Your task to perform on an android device: turn on data saver in the chrome app Image 0: 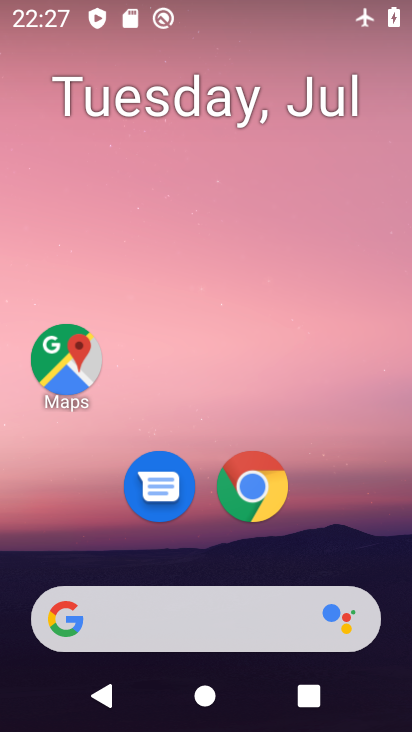
Step 0: drag from (363, 527) to (370, 201)
Your task to perform on an android device: turn on data saver in the chrome app Image 1: 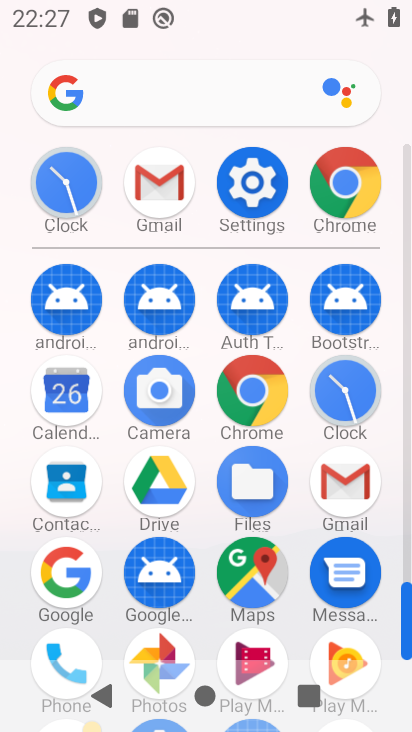
Step 1: click (243, 386)
Your task to perform on an android device: turn on data saver in the chrome app Image 2: 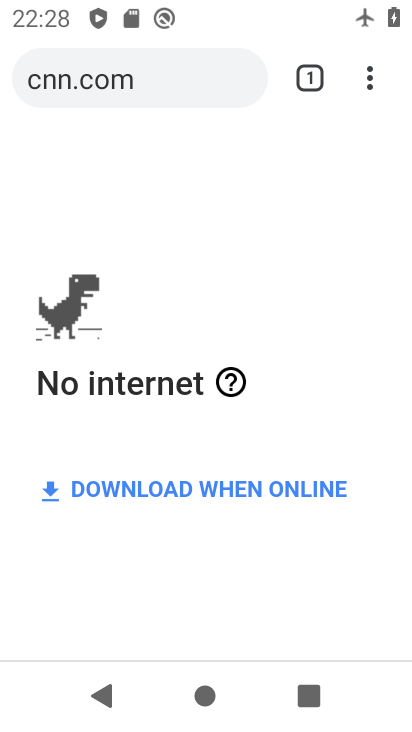
Step 2: click (366, 85)
Your task to perform on an android device: turn on data saver in the chrome app Image 3: 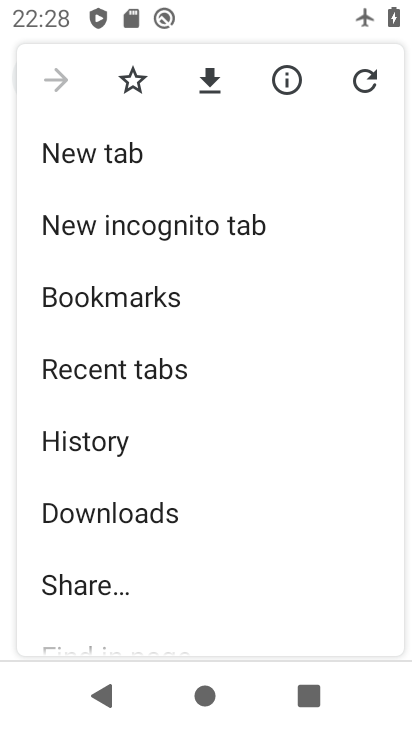
Step 3: drag from (335, 274) to (341, 228)
Your task to perform on an android device: turn on data saver in the chrome app Image 4: 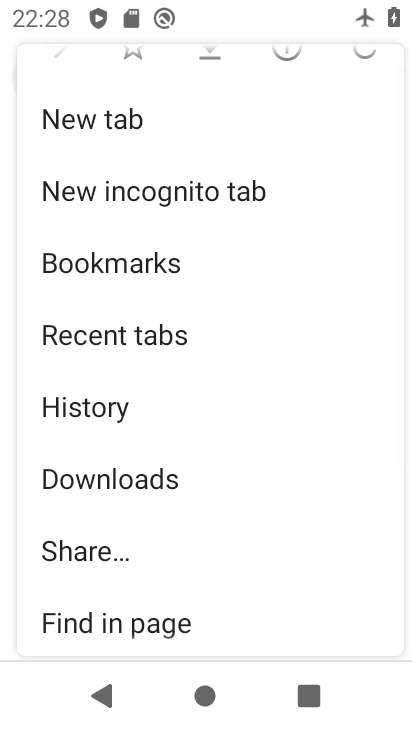
Step 4: drag from (341, 348) to (344, 270)
Your task to perform on an android device: turn on data saver in the chrome app Image 5: 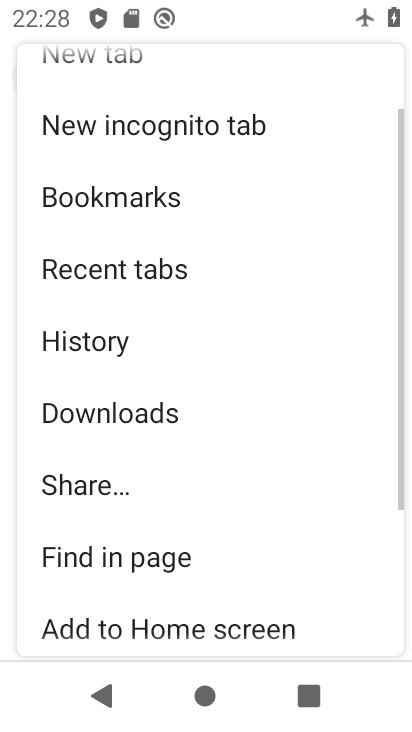
Step 5: drag from (318, 385) to (321, 322)
Your task to perform on an android device: turn on data saver in the chrome app Image 6: 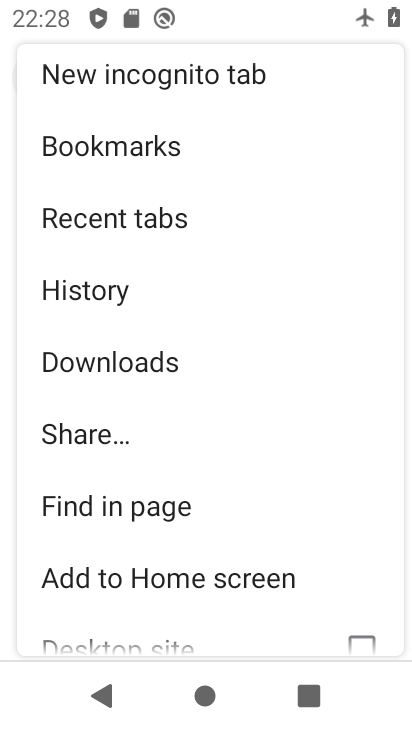
Step 6: drag from (314, 400) to (322, 352)
Your task to perform on an android device: turn on data saver in the chrome app Image 7: 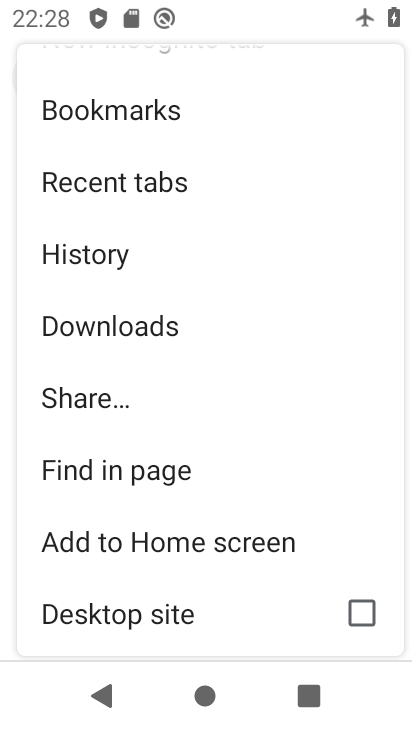
Step 7: drag from (311, 424) to (315, 354)
Your task to perform on an android device: turn on data saver in the chrome app Image 8: 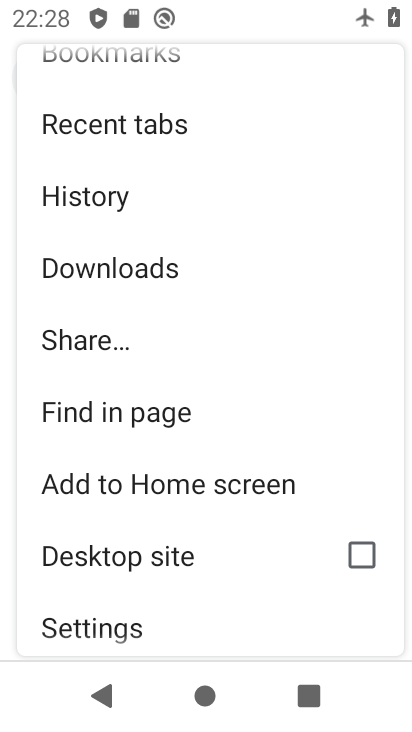
Step 8: drag from (310, 429) to (318, 361)
Your task to perform on an android device: turn on data saver in the chrome app Image 9: 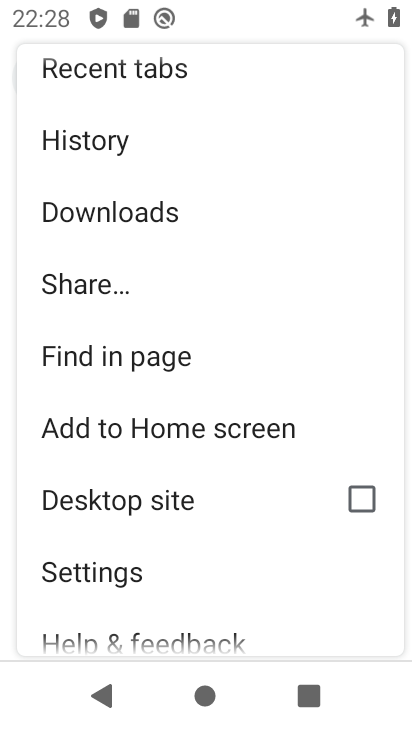
Step 9: drag from (305, 470) to (316, 396)
Your task to perform on an android device: turn on data saver in the chrome app Image 10: 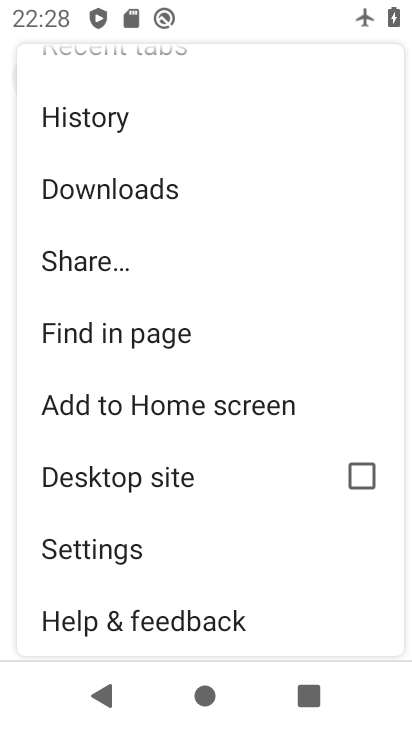
Step 10: click (151, 549)
Your task to perform on an android device: turn on data saver in the chrome app Image 11: 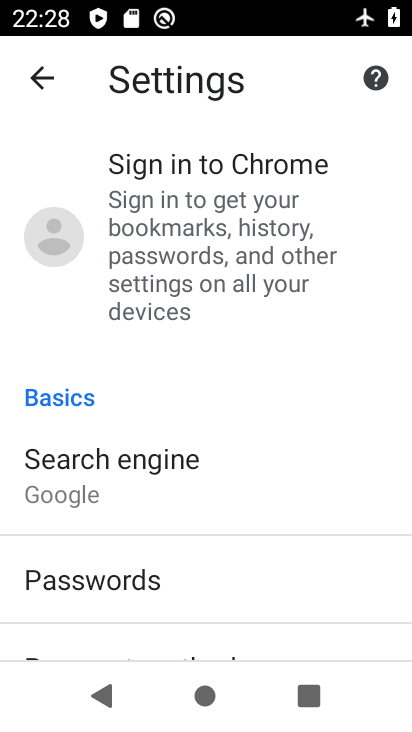
Step 11: drag from (264, 549) to (269, 508)
Your task to perform on an android device: turn on data saver in the chrome app Image 12: 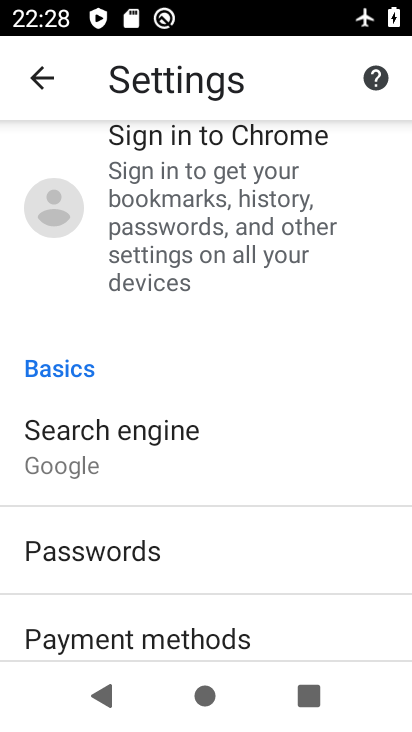
Step 12: drag from (301, 581) to (306, 535)
Your task to perform on an android device: turn on data saver in the chrome app Image 13: 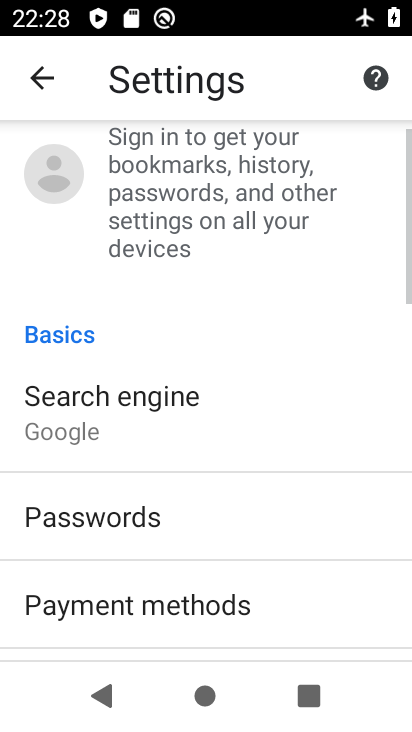
Step 13: drag from (320, 571) to (322, 521)
Your task to perform on an android device: turn on data saver in the chrome app Image 14: 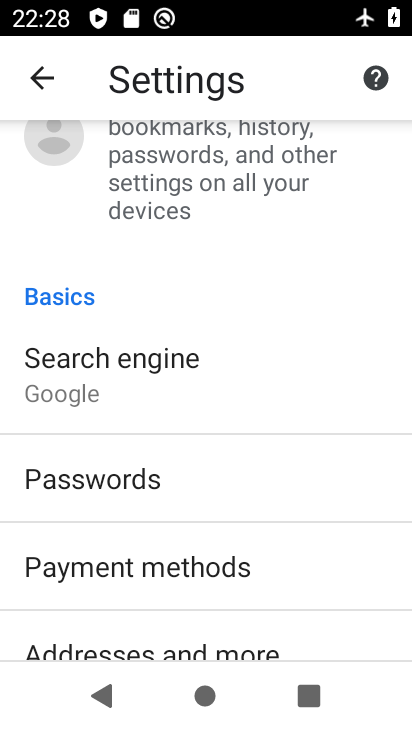
Step 14: drag from (339, 569) to (341, 521)
Your task to perform on an android device: turn on data saver in the chrome app Image 15: 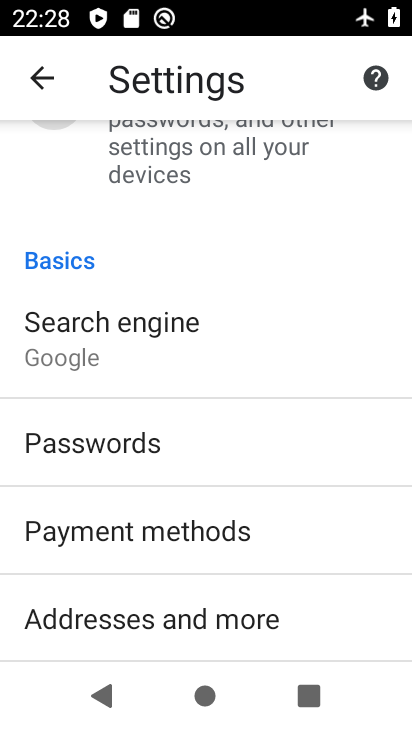
Step 15: drag from (341, 553) to (340, 505)
Your task to perform on an android device: turn on data saver in the chrome app Image 16: 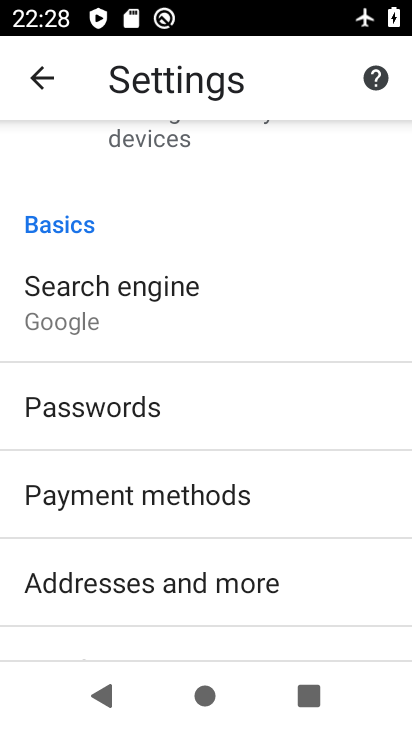
Step 16: drag from (338, 565) to (337, 517)
Your task to perform on an android device: turn on data saver in the chrome app Image 17: 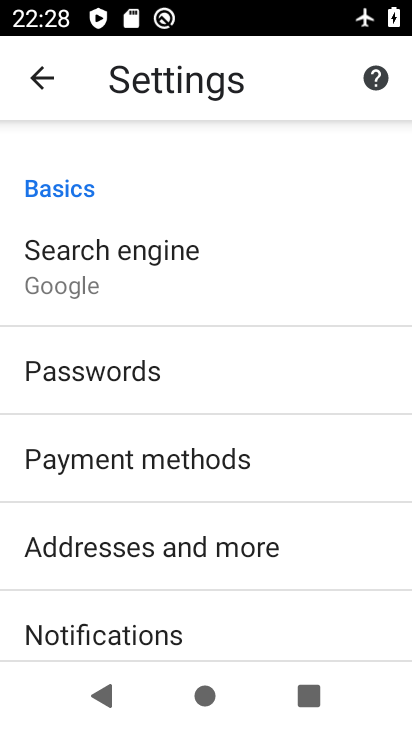
Step 17: drag from (329, 580) to (332, 520)
Your task to perform on an android device: turn on data saver in the chrome app Image 18: 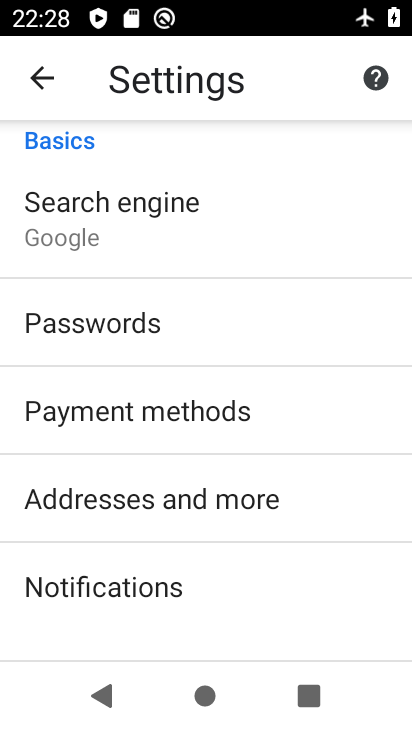
Step 18: drag from (328, 559) to (327, 494)
Your task to perform on an android device: turn on data saver in the chrome app Image 19: 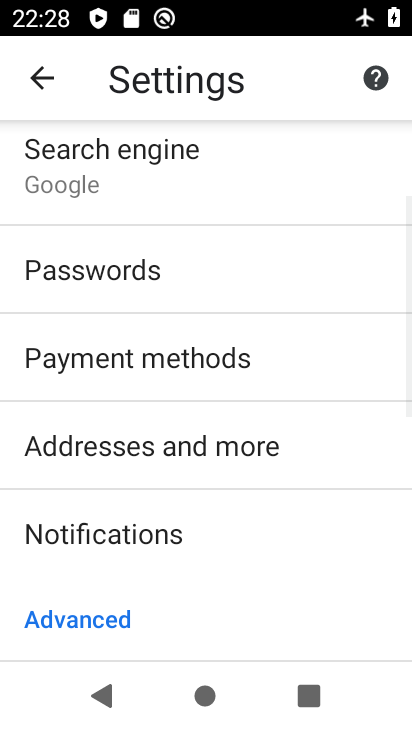
Step 19: drag from (319, 554) to (319, 486)
Your task to perform on an android device: turn on data saver in the chrome app Image 20: 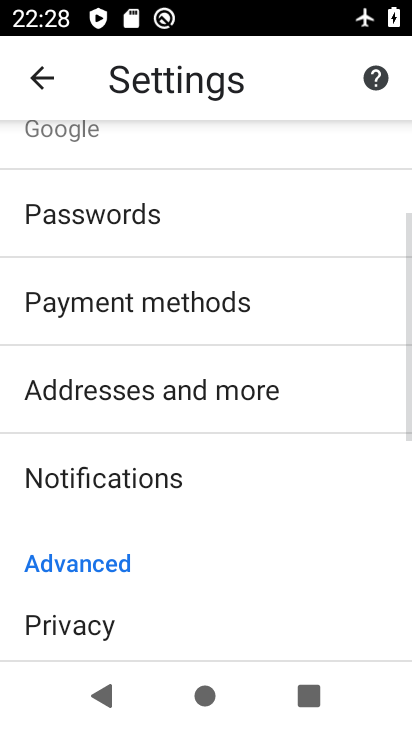
Step 20: drag from (328, 554) to (327, 471)
Your task to perform on an android device: turn on data saver in the chrome app Image 21: 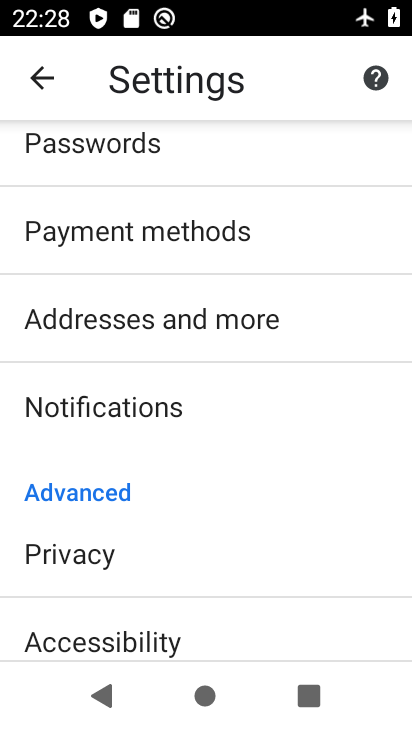
Step 21: drag from (334, 547) to (324, 425)
Your task to perform on an android device: turn on data saver in the chrome app Image 22: 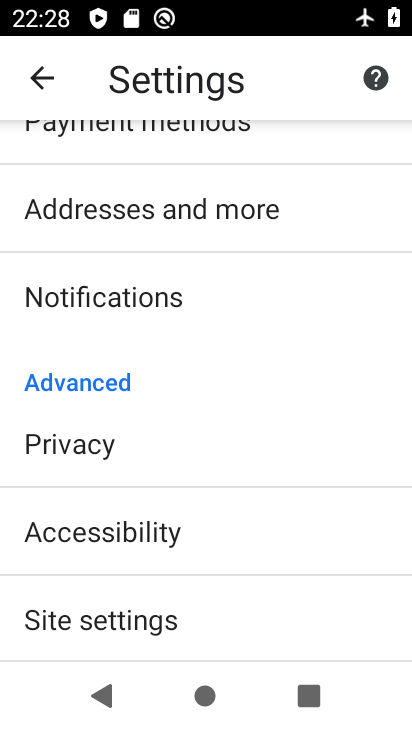
Step 22: drag from (332, 540) to (323, 459)
Your task to perform on an android device: turn on data saver in the chrome app Image 23: 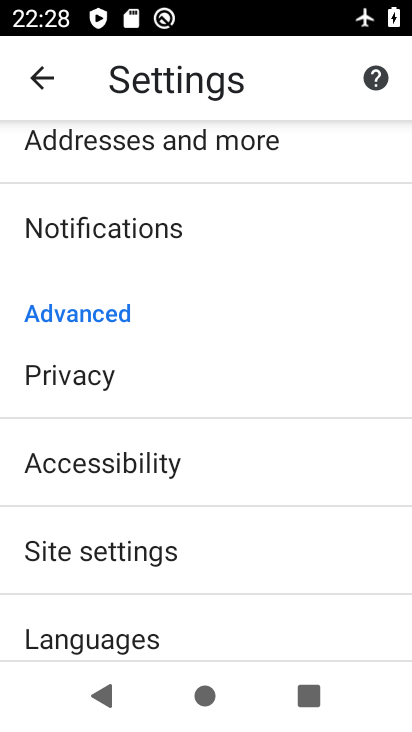
Step 23: drag from (333, 544) to (329, 437)
Your task to perform on an android device: turn on data saver in the chrome app Image 24: 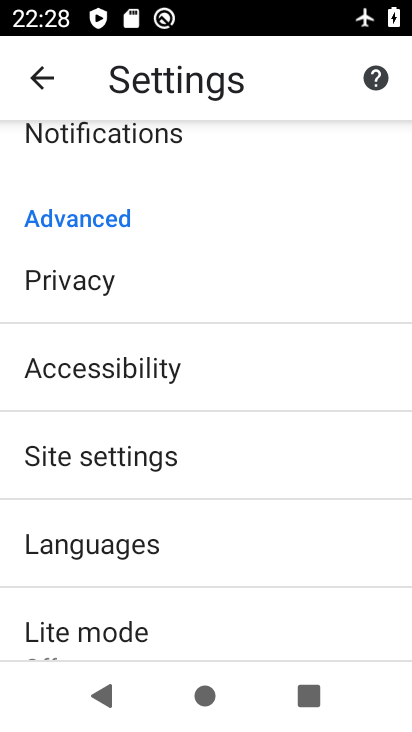
Step 24: drag from (342, 545) to (334, 447)
Your task to perform on an android device: turn on data saver in the chrome app Image 25: 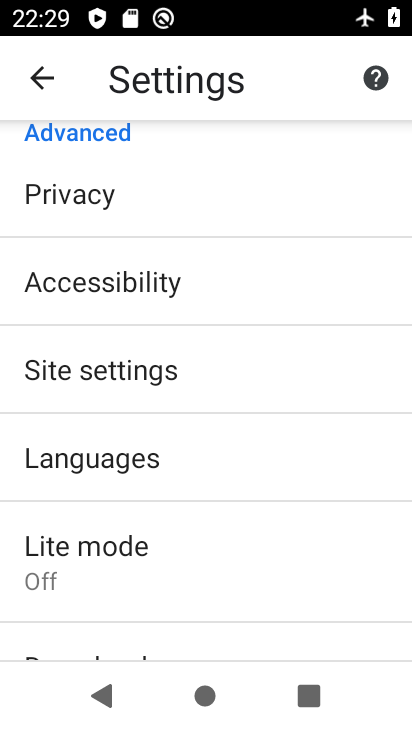
Step 25: click (315, 564)
Your task to perform on an android device: turn on data saver in the chrome app Image 26: 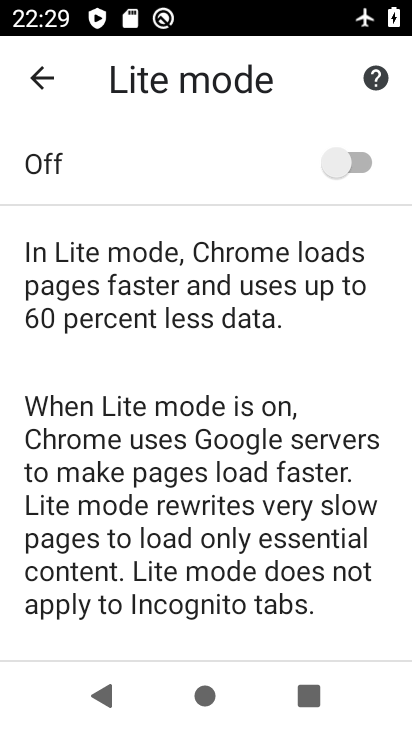
Step 26: click (346, 169)
Your task to perform on an android device: turn on data saver in the chrome app Image 27: 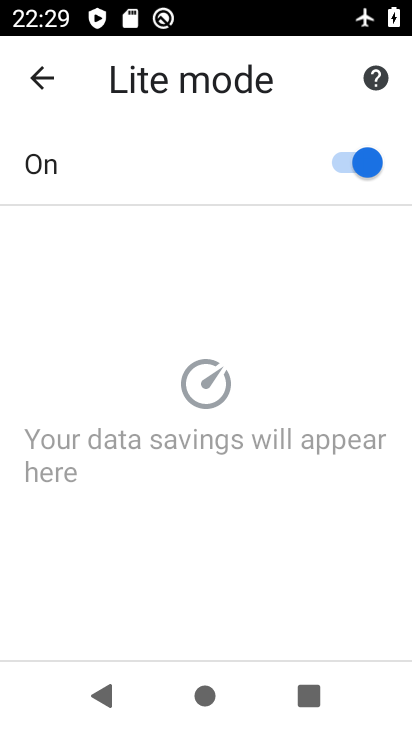
Step 27: task complete